Your task to perform on an android device: Turn off the flashlight Image 0: 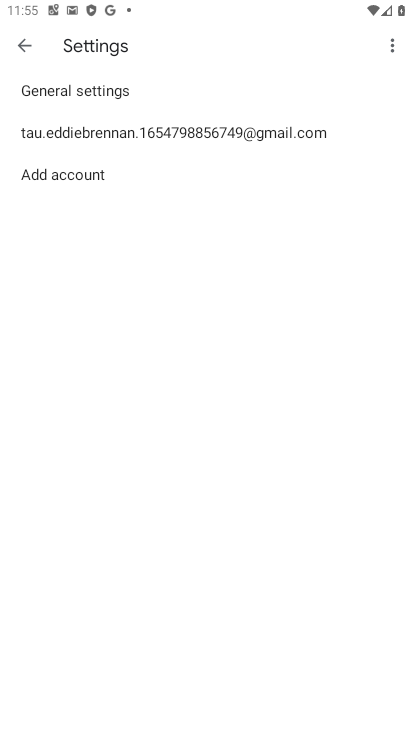
Step 0: press home button
Your task to perform on an android device: Turn off the flashlight Image 1: 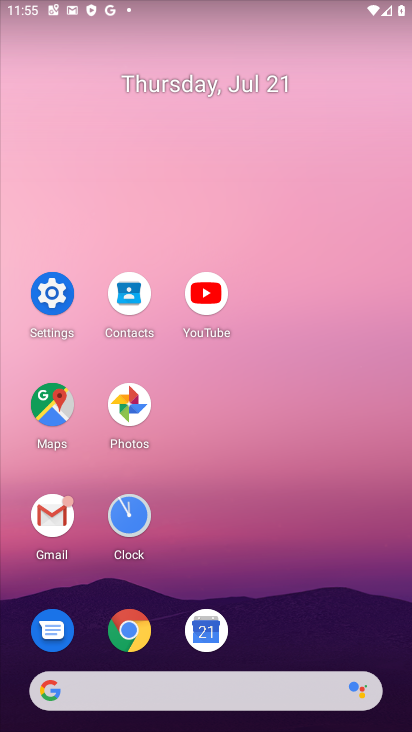
Step 1: click (54, 287)
Your task to perform on an android device: Turn off the flashlight Image 2: 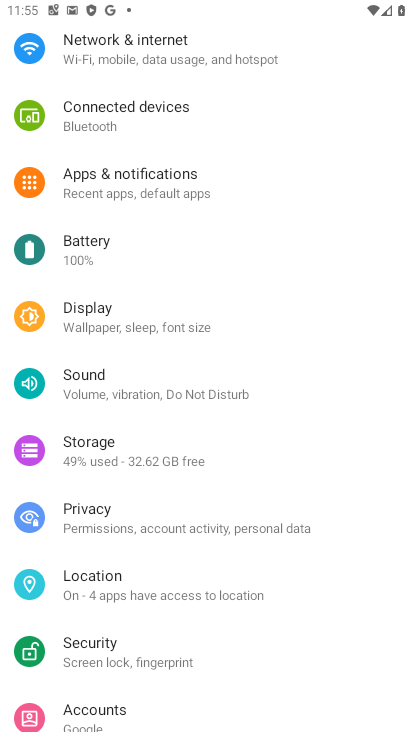
Step 2: click (95, 314)
Your task to perform on an android device: Turn off the flashlight Image 3: 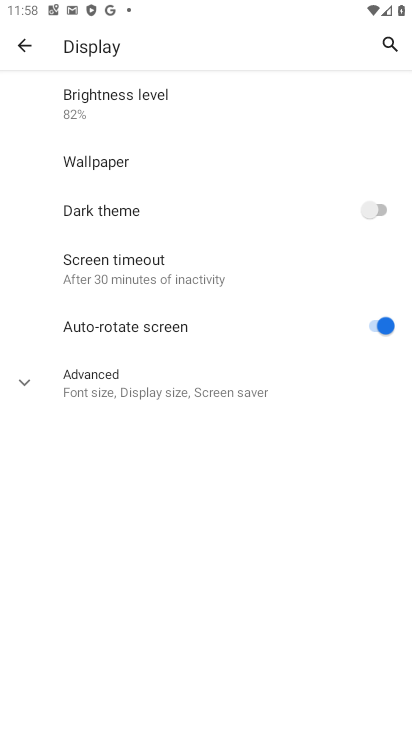
Step 3: task complete